Your task to perform on an android device: open app "Google Find My Device" (install if not already installed) Image 0: 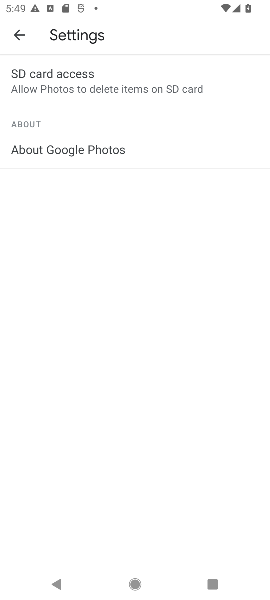
Step 0: press home button
Your task to perform on an android device: open app "Google Find My Device" (install if not already installed) Image 1: 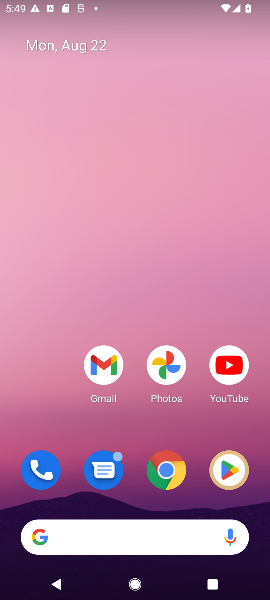
Step 1: click (244, 465)
Your task to perform on an android device: open app "Google Find My Device" (install if not already installed) Image 2: 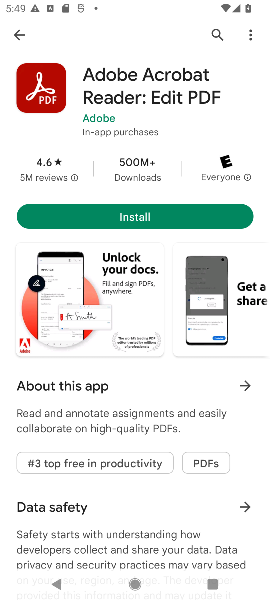
Step 2: click (18, 38)
Your task to perform on an android device: open app "Google Find My Device" (install if not already installed) Image 3: 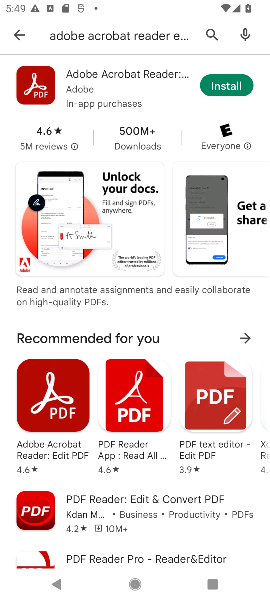
Step 3: click (26, 24)
Your task to perform on an android device: open app "Google Find My Device" (install if not already installed) Image 4: 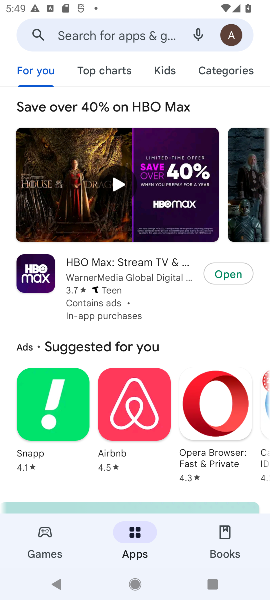
Step 4: click (54, 31)
Your task to perform on an android device: open app "Google Find My Device" (install if not already installed) Image 5: 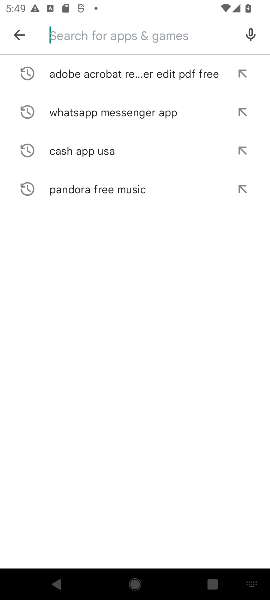
Step 5: type "Google Find My Device "
Your task to perform on an android device: open app "Google Find My Device" (install if not already installed) Image 6: 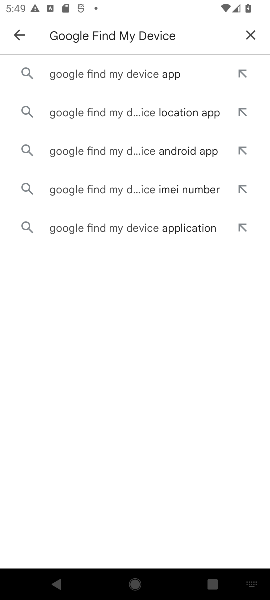
Step 6: click (103, 76)
Your task to perform on an android device: open app "Google Find My Device" (install if not already installed) Image 7: 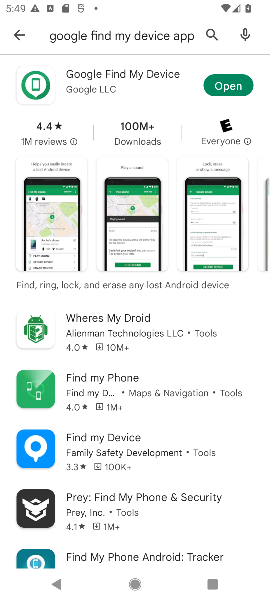
Step 7: click (228, 84)
Your task to perform on an android device: open app "Google Find My Device" (install if not already installed) Image 8: 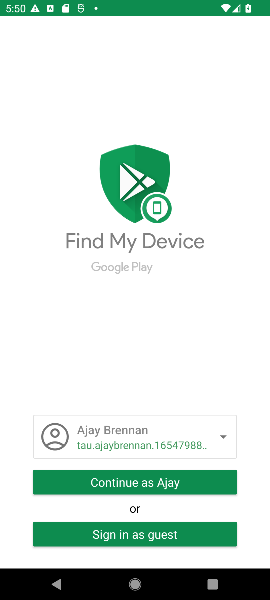
Step 8: task complete